Your task to perform on an android device: check data usage Image 0: 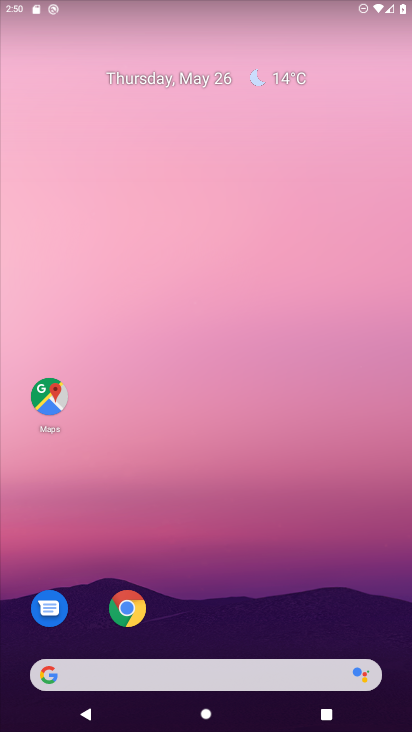
Step 0: drag from (334, 557) to (309, 93)
Your task to perform on an android device: check data usage Image 1: 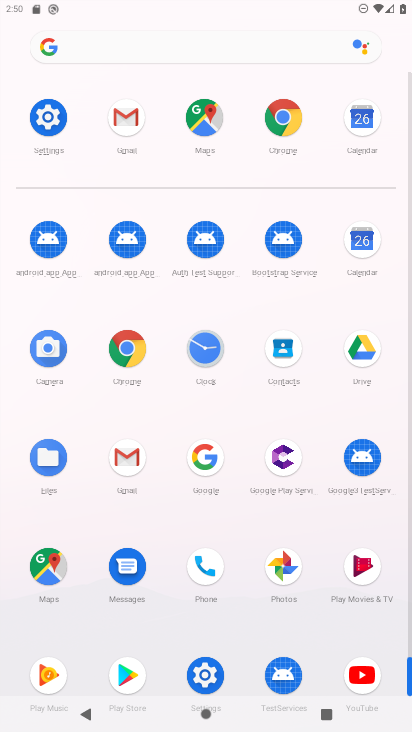
Step 1: click (46, 117)
Your task to perform on an android device: check data usage Image 2: 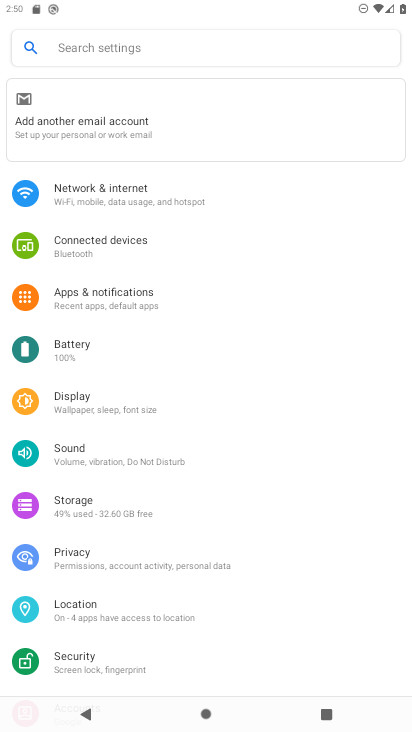
Step 2: click (81, 193)
Your task to perform on an android device: check data usage Image 3: 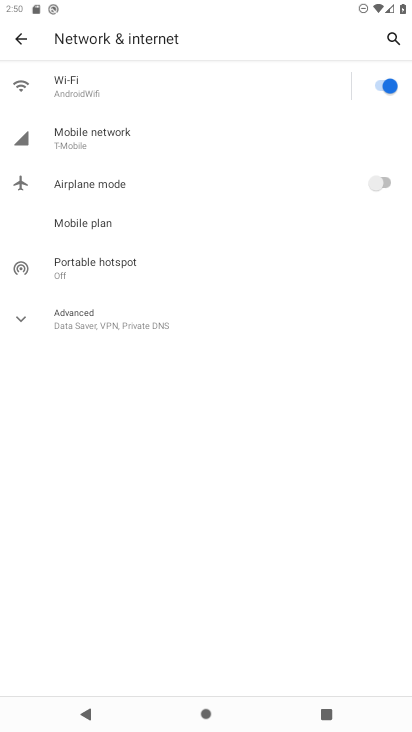
Step 3: click (108, 144)
Your task to perform on an android device: check data usage Image 4: 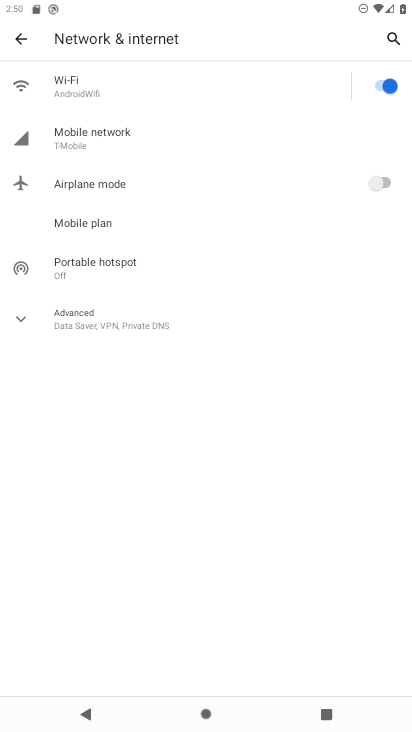
Step 4: task complete